Your task to perform on an android device: Open wifi settings Image 0: 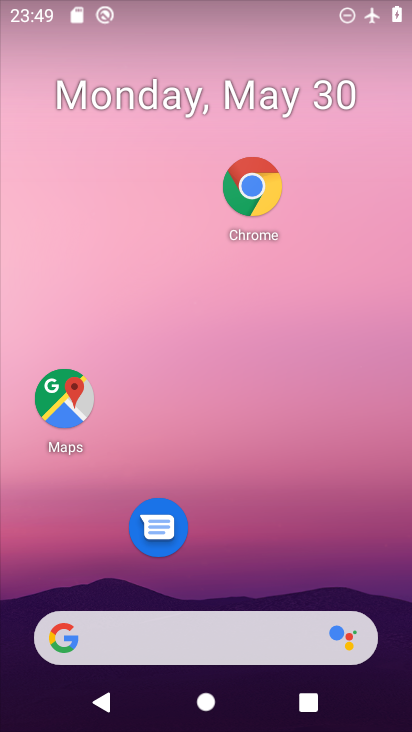
Step 0: drag from (289, 449) to (284, 52)
Your task to perform on an android device: Open wifi settings Image 1: 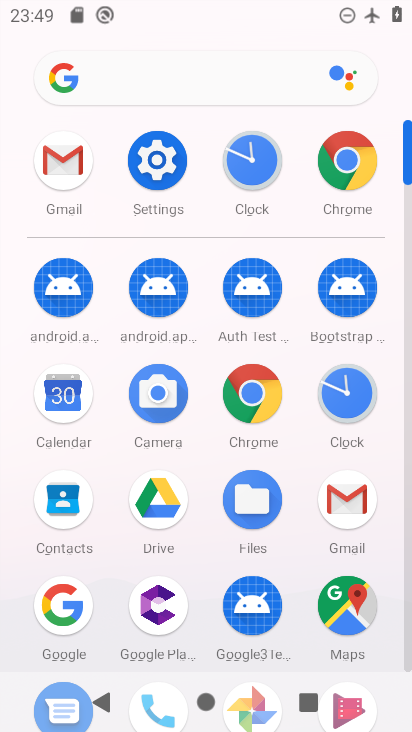
Step 1: click (148, 152)
Your task to perform on an android device: Open wifi settings Image 2: 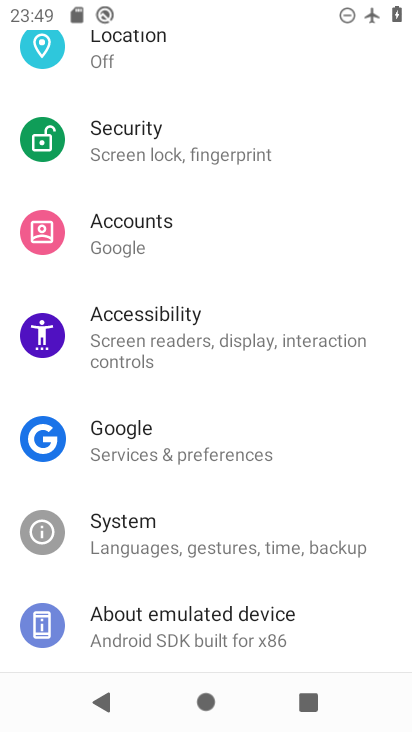
Step 2: drag from (230, 120) to (235, 627)
Your task to perform on an android device: Open wifi settings Image 3: 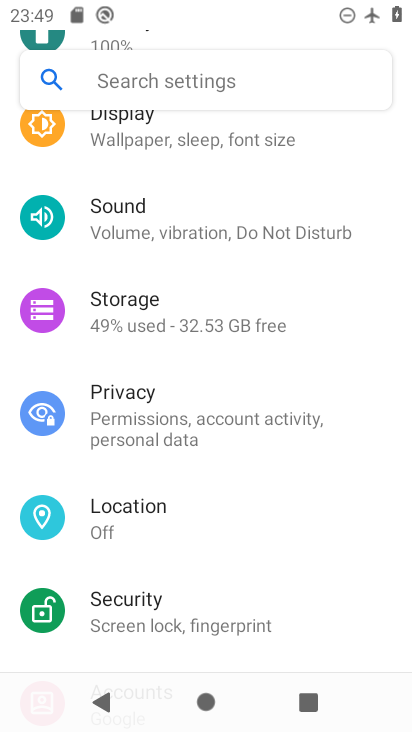
Step 3: drag from (262, 251) to (252, 683)
Your task to perform on an android device: Open wifi settings Image 4: 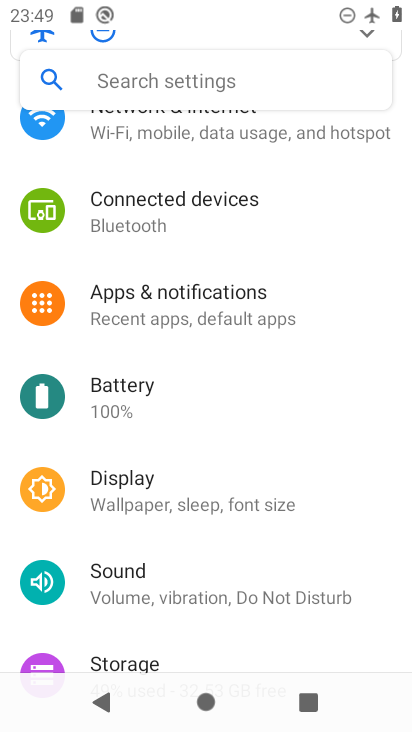
Step 4: drag from (268, 136) to (254, 661)
Your task to perform on an android device: Open wifi settings Image 5: 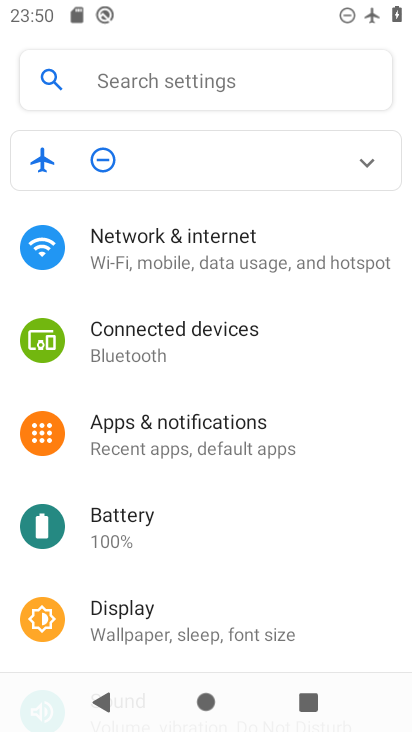
Step 5: click (223, 241)
Your task to perform on an android device: Open wifi settings Image 6: 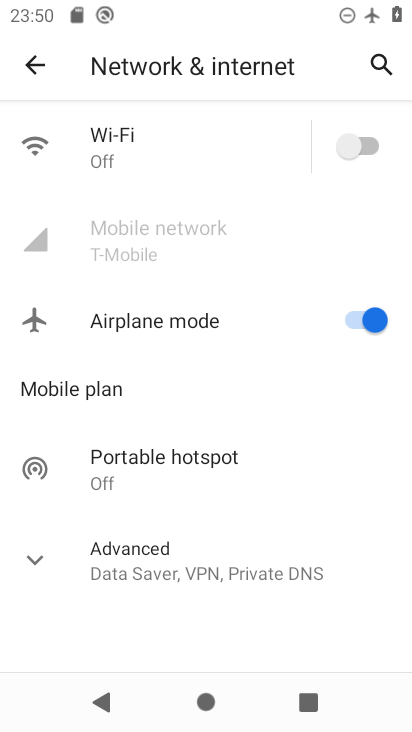
Step 6: task complete